Your task to perform on an android device: turn off javascript in the chrome app Image 0: 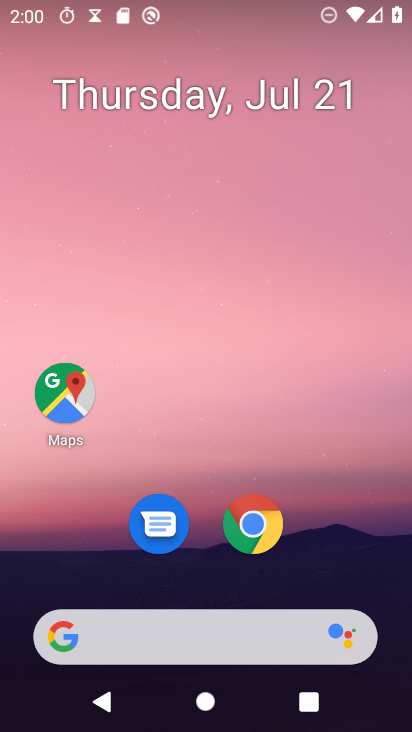
Step 0: press home button
Your task to perform on an android device: turn off javascript in the chrome app Image 1: 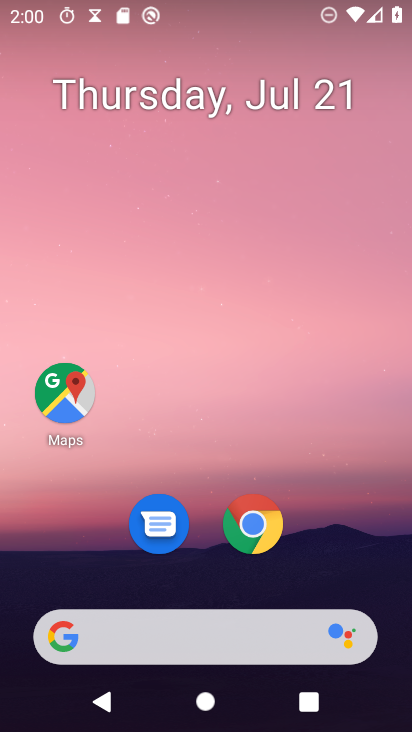
Step 1: click (244, 534)
Your task to perform on an android device: turn off javascript in the chrome app Image 2: 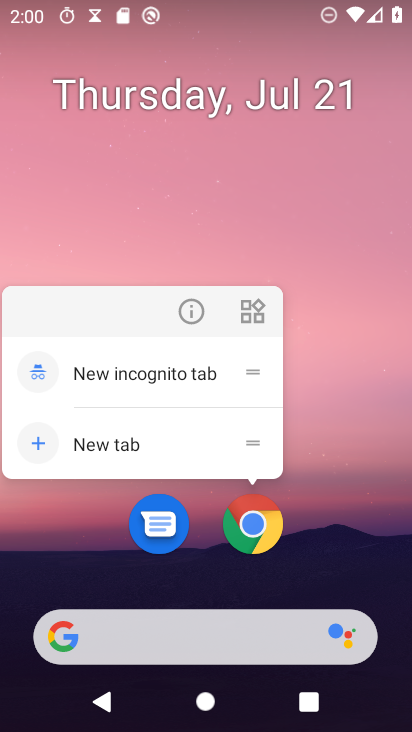
Step 2: click (261, 522)
Your task to perform on an android device: turn off javascript in the chrome app Image 3: 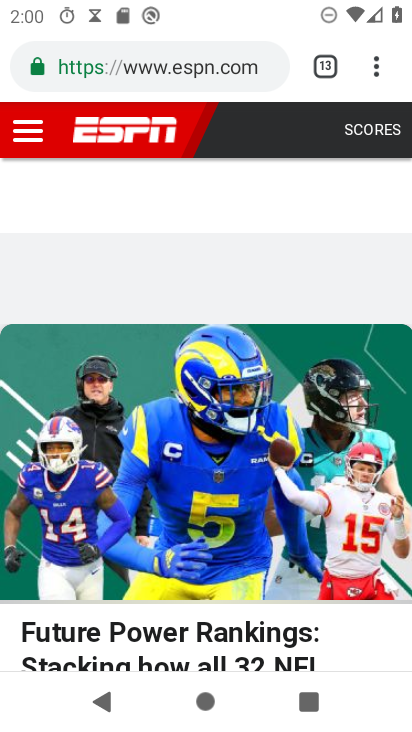
Step 3: drag from (376, 68) to (273, 525)
Your task to perform on an android device: turn off javascript in the chrome app Image 4: 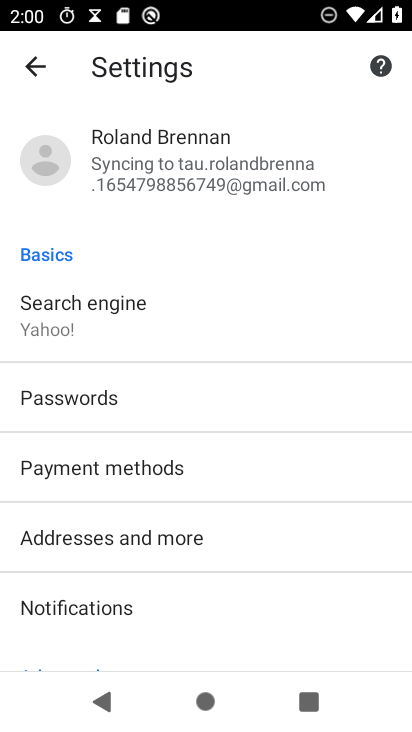
Step 4: drag from (226, 625) to (360, 120)
Your task to perform on an android device: turn off javascript in the chrome app Image 5: 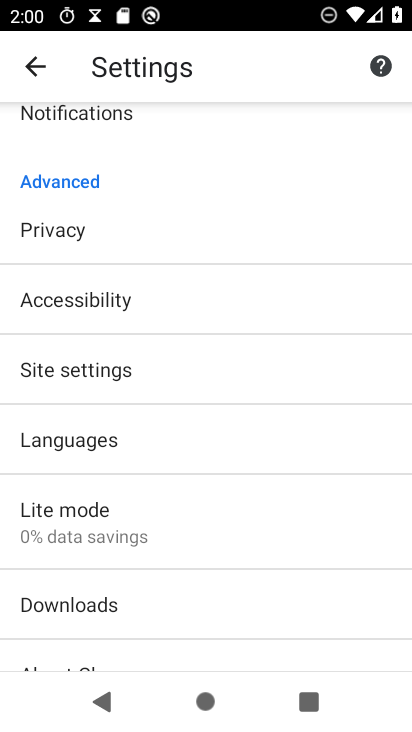
Step 5: click (90, 370)
Your task to perform on an android device: turn off javascript in the chrome app Image 6: 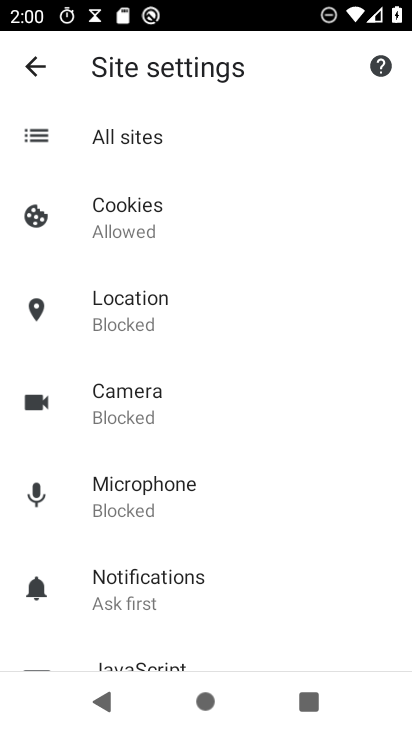
Step 6: drag from (258, 593) to (260, 206)
Your task to perform on an android device: turn off javascript in the chrome app Image 7: 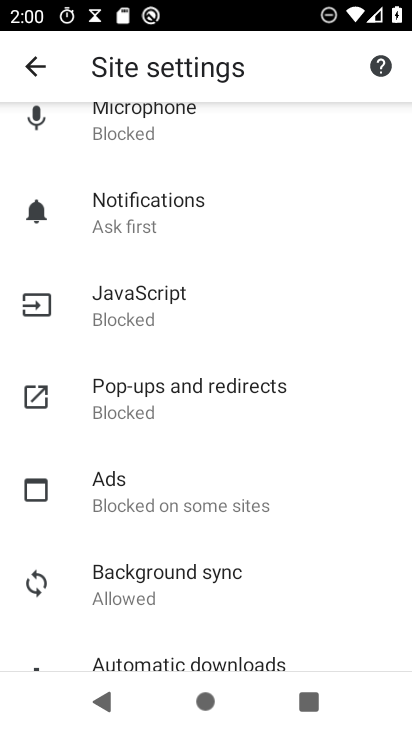
Step 7: click (158, 309)
Your task to perform on an android device: turn off javascript in the chrome app Image 8: 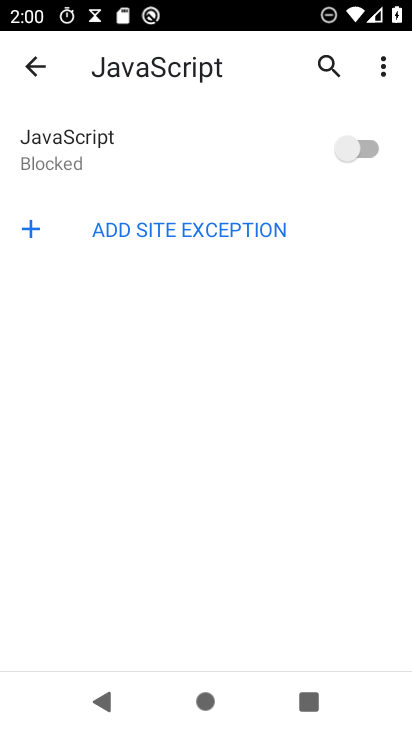
Step 8: task complete